Your task to perform on an android device: When is my next appointment? Image 0: 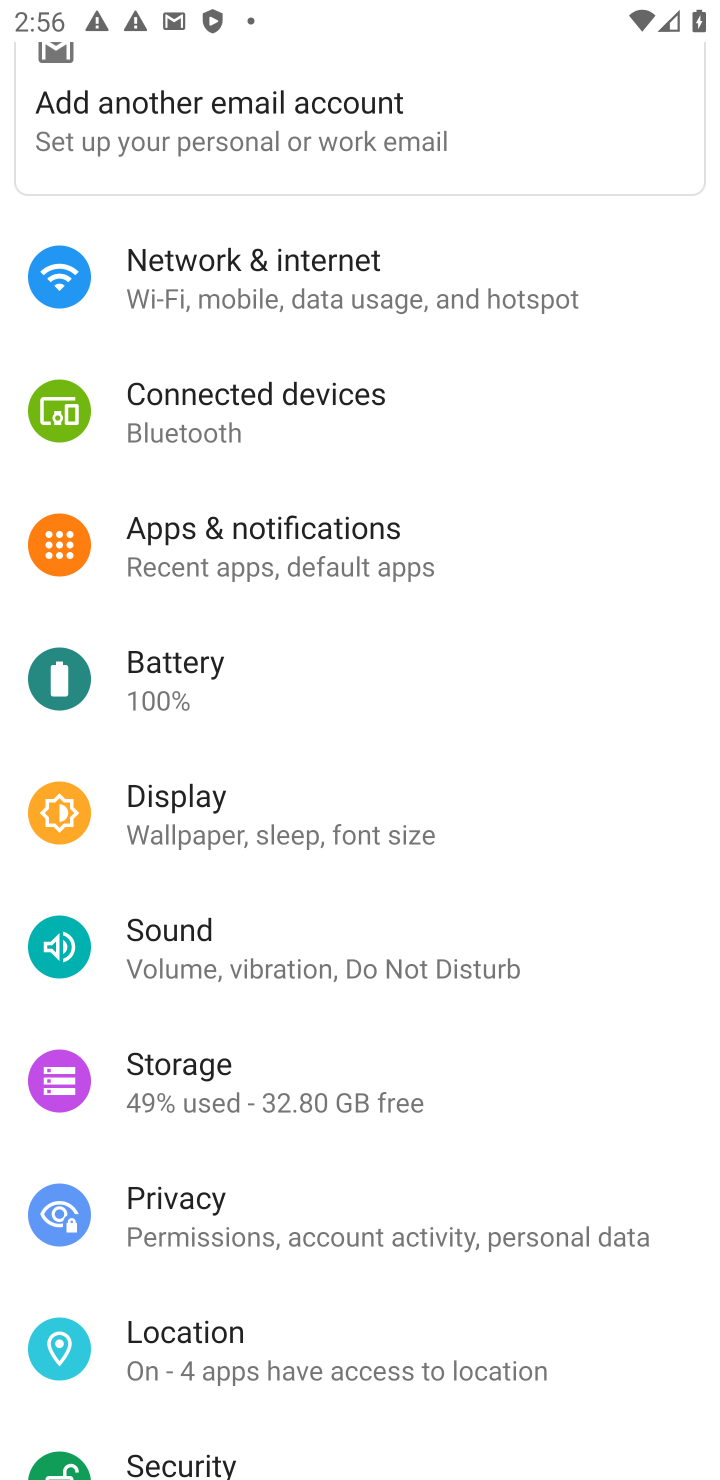
Step 0: press home button
Your task to perform on an android device: When is my next appointment? Image 1: 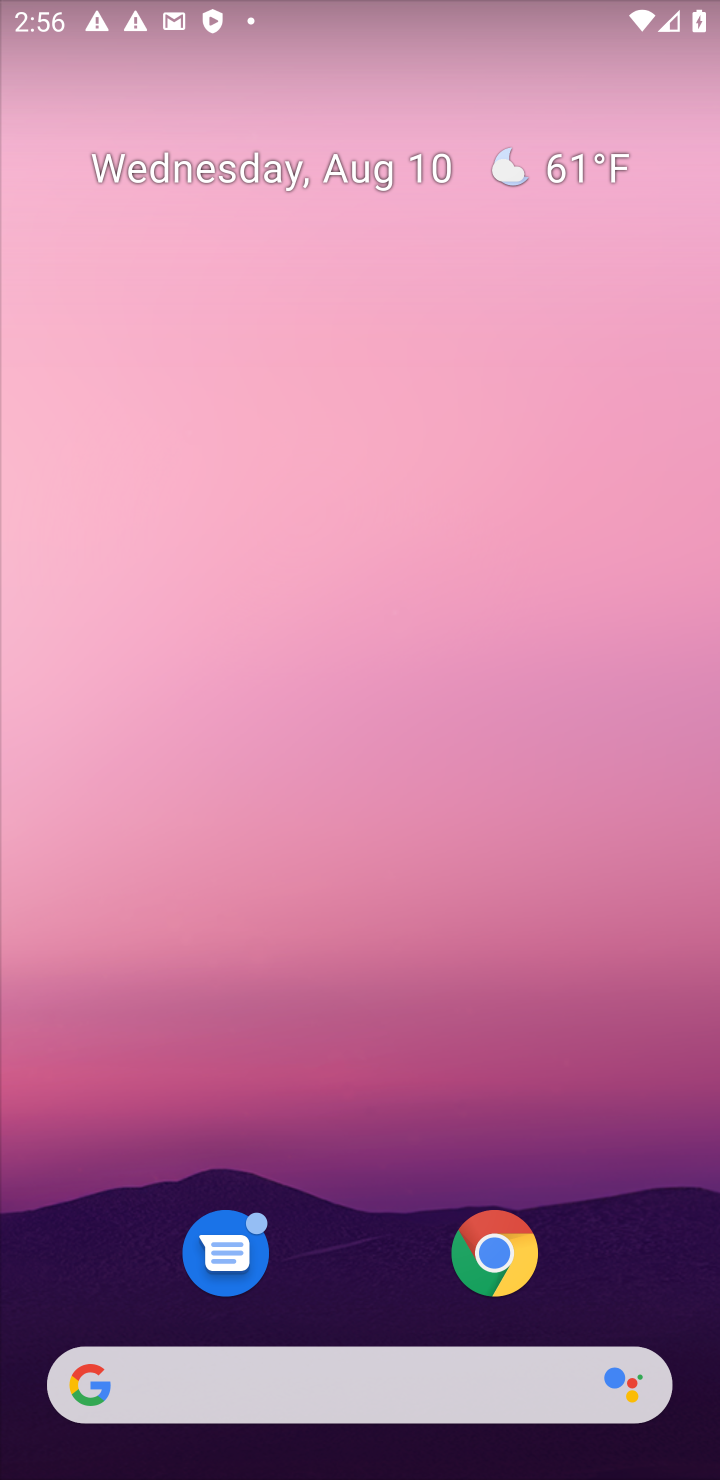
Step 1: drag from (297, 909) to (297, 264)
Your task to perform on an android device: When is my next appointment? Image 2: 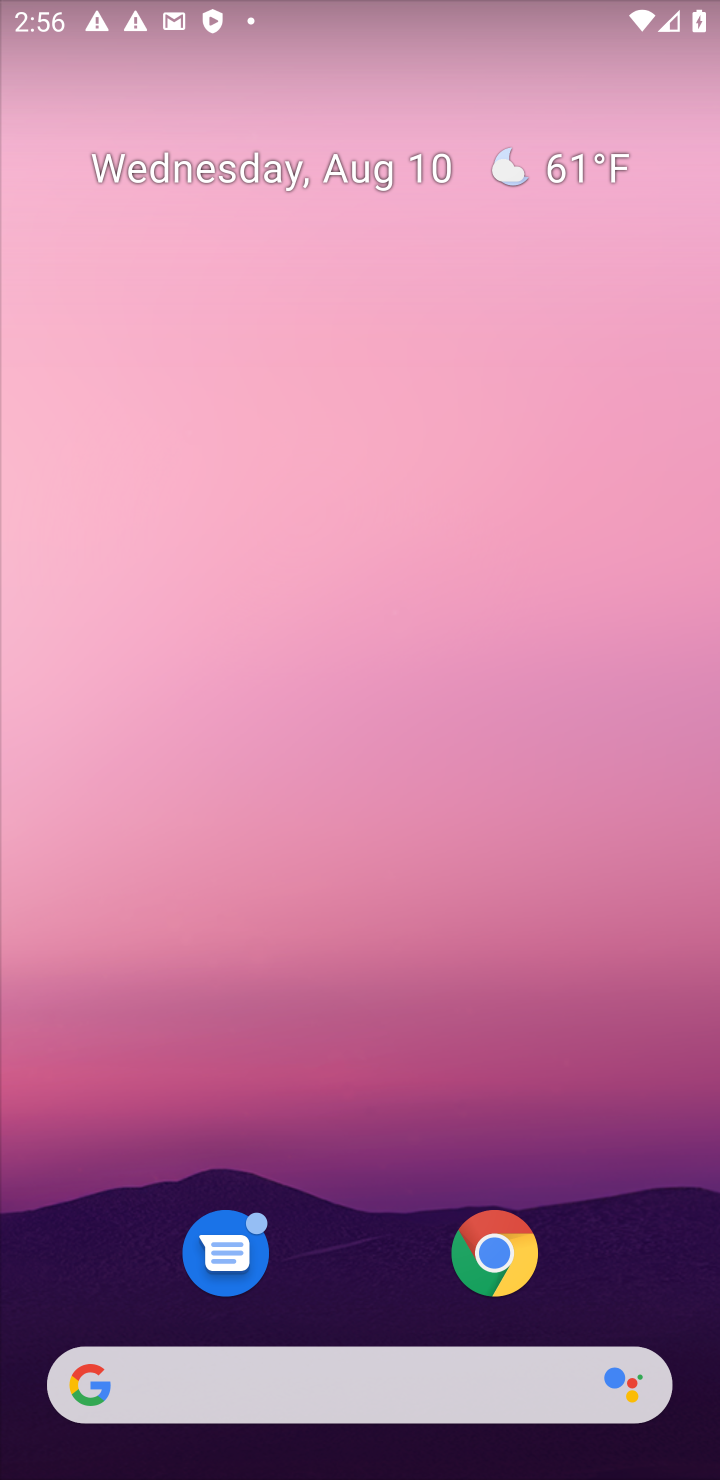
Step 2: drag from (404, 1043) to (246, 400)
Your task to perform on an android device: When is my next appointment? Image 3: 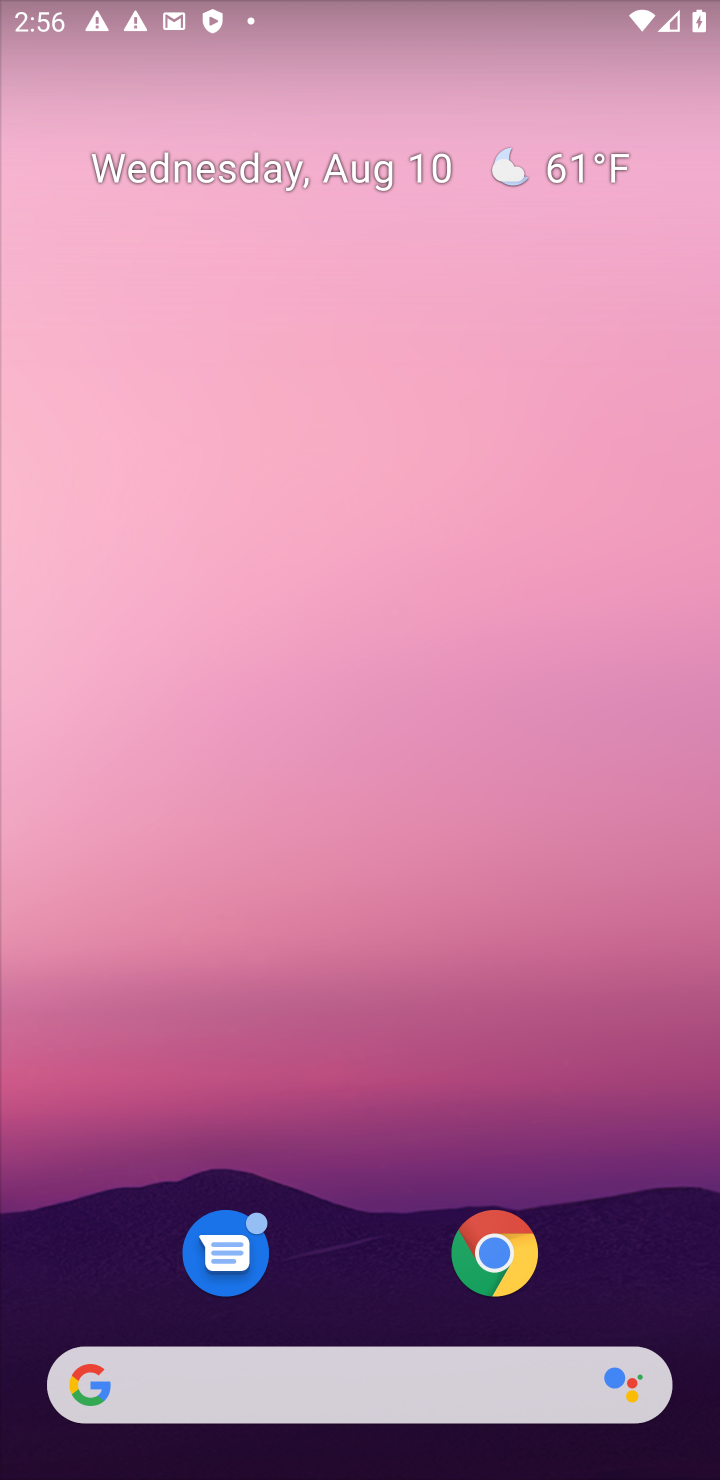
Step 3: drag from (398, 822) to (395, 106)
Your task to perform on an android device: When is my next appointment? Image 4: 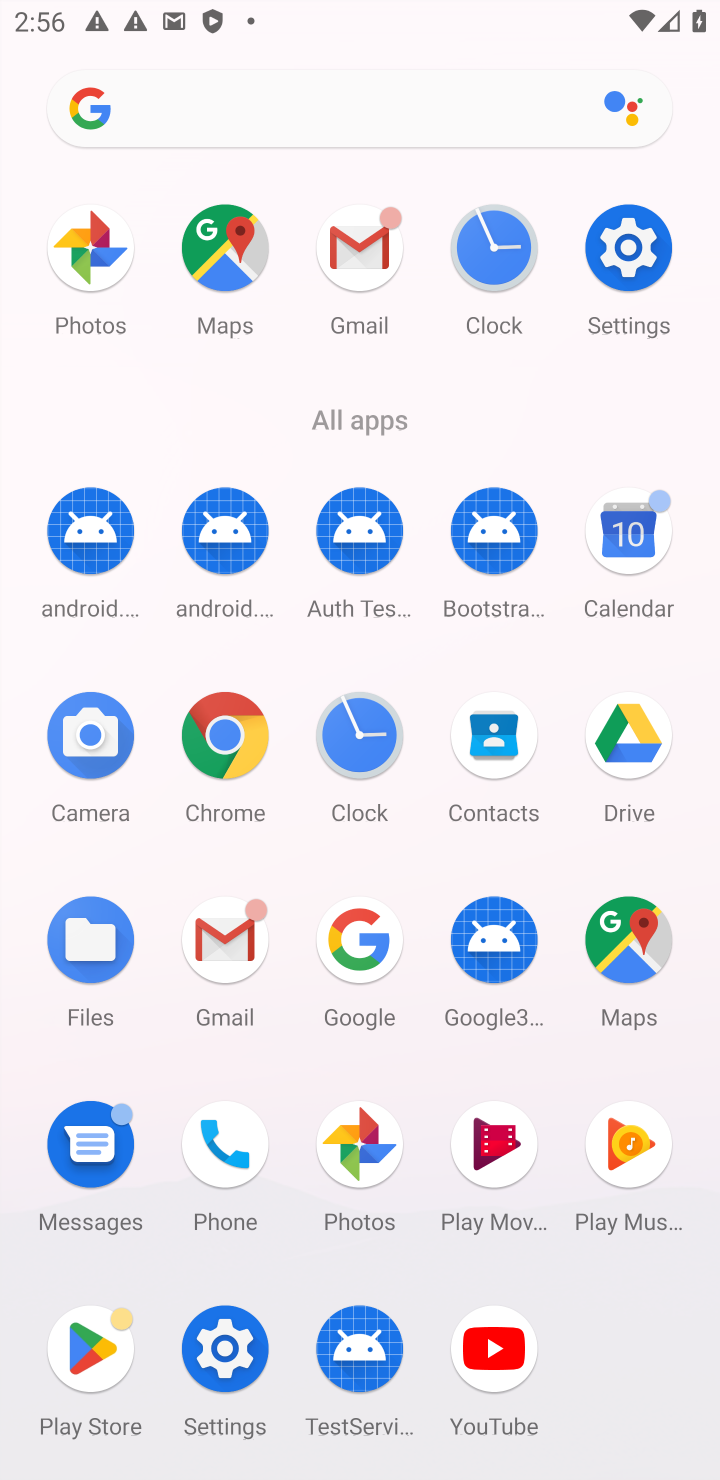
Step 4: click (607, 540)
Your task to perform on an android device: When is my next appointment? Image 5: 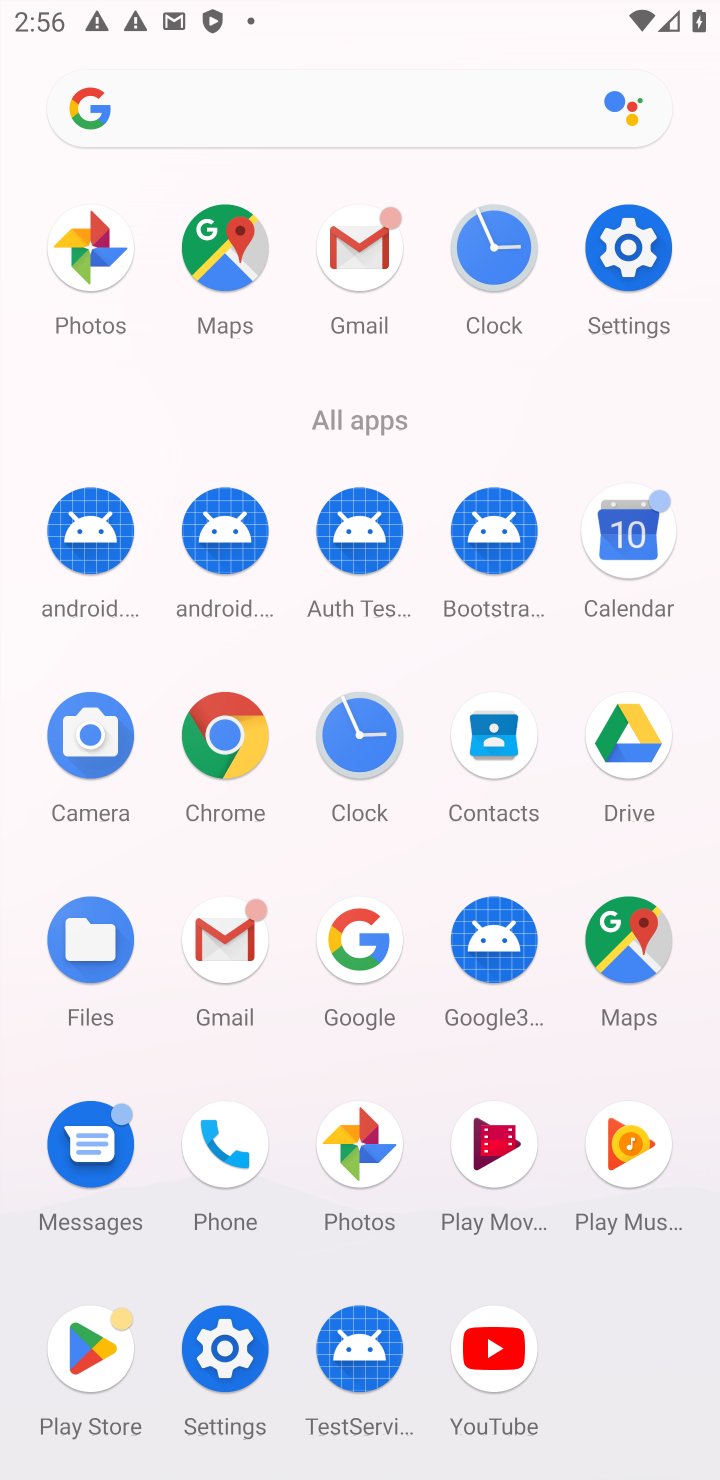
Step 5: task complete